Your task to perform on an android device: toggle notification dots Image 0: 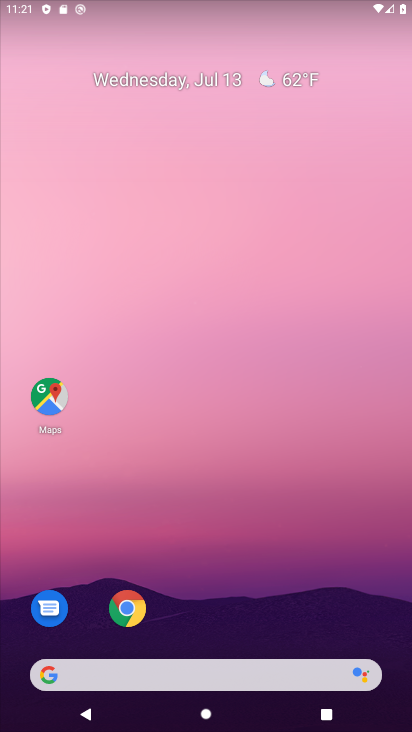
Step 0: drag from (228, 724) to (254, 130)
Your task to perform on an android device: toggle notification dots Image 1: 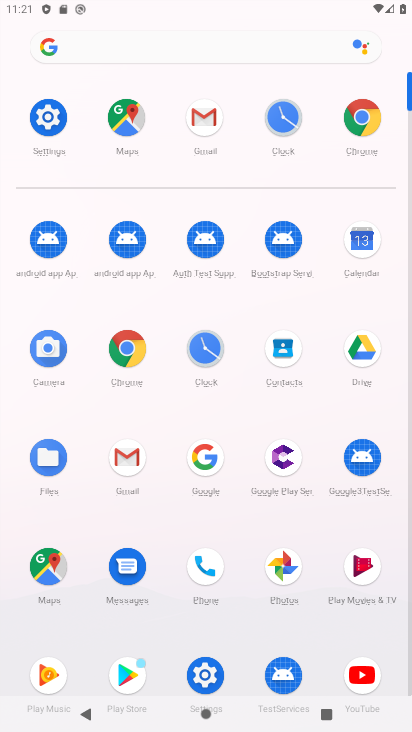
Step 1: click (40, 114)
Your task to perform on an android device: toggle notification dots Image 2: 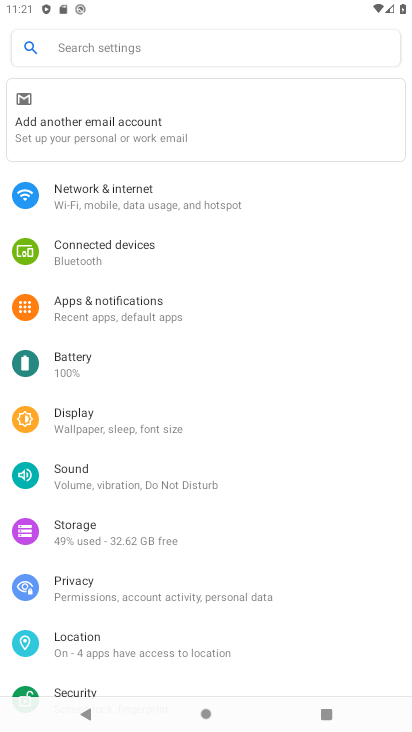
Step 2: click (108, 305)
Your task to perform on an android device: toggle notification dots Image 3: 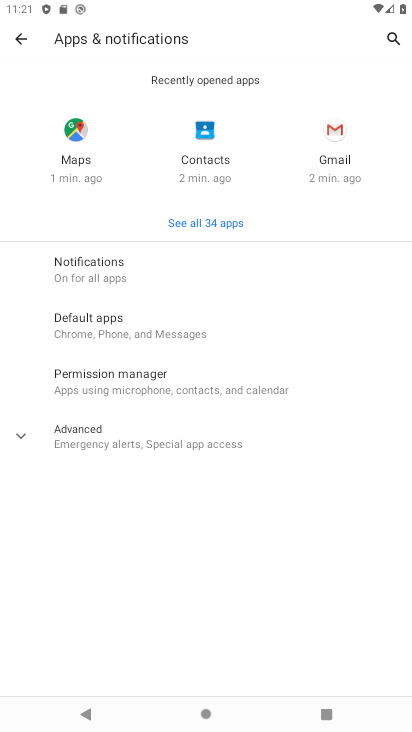
Step 3: click (73, 267)
Your task to perform on an android device: toggle notification dots Image 4: 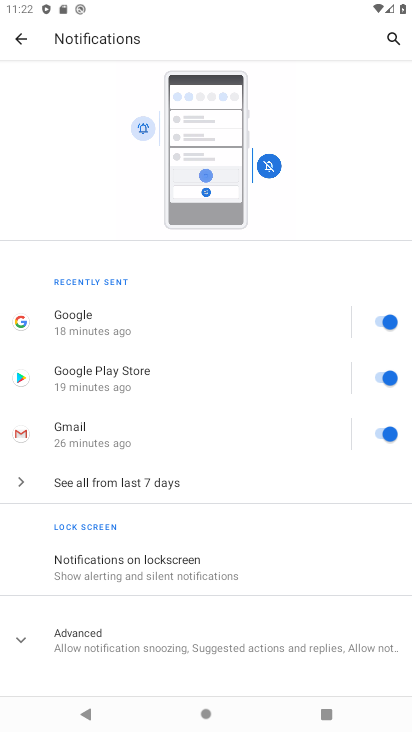
Step 4: drag from (154, 583) to (154, 274)
Your task to perform on an android device: toggle notification dots Image 5: 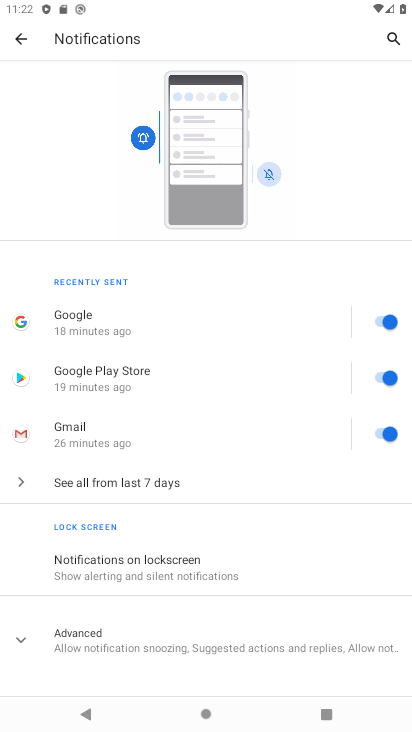
Step 5: click (163, 650)
Your task to perform on an android device: toggle notification dots Image 6: 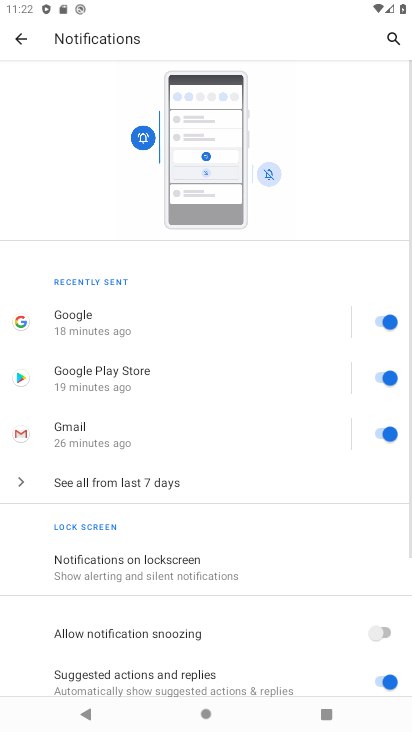
Step 6: drag from (278, 586) to (261, 422)
Your task to perform on an android device: toggle notification dots Image 7: 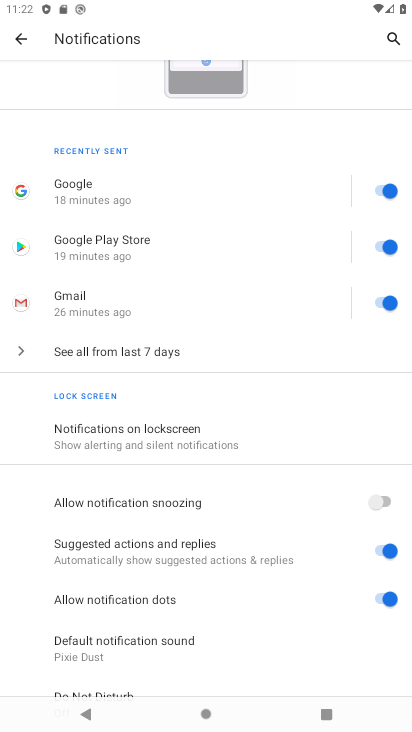
Step 7: click (382, 600)
Your task to perform on an android device: toggle notification dots Image 8: 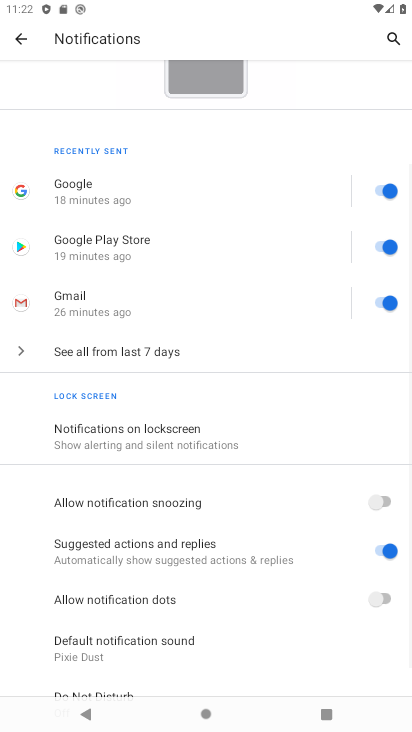
Step 8: task complete